Your task to perform on an android device: Show me popular games on the Play Store Image 0: 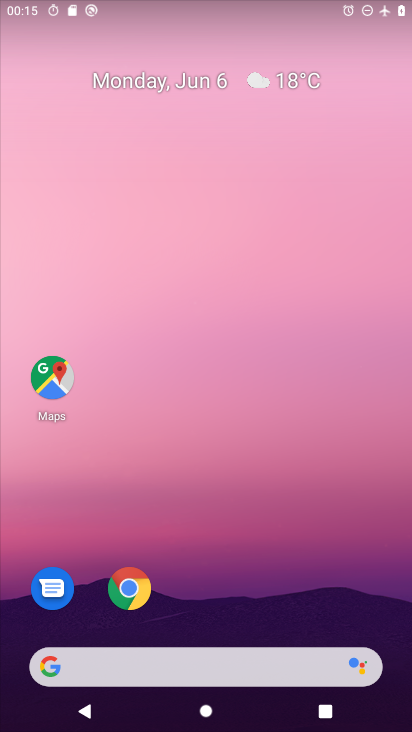
Step 0: drag from (326, 561) to (321, 128)
Your task to perform on an android device: Show me popular games on the Play Store Image 1: 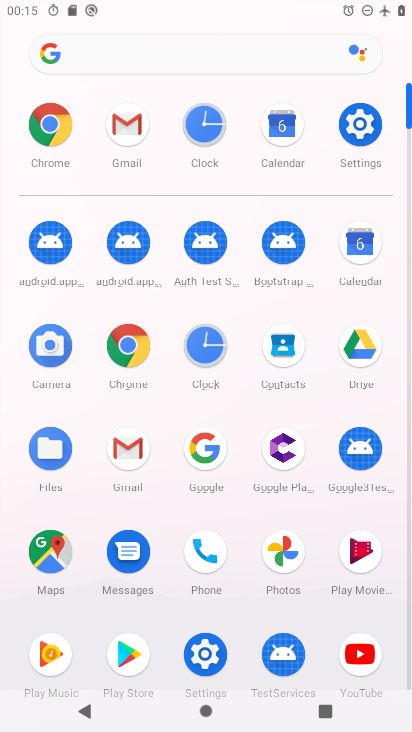
Step 1: drag from (316, 612) to (317, 350)
Your task to perform on an android device: Show me popular games on the Play Store Image 2: 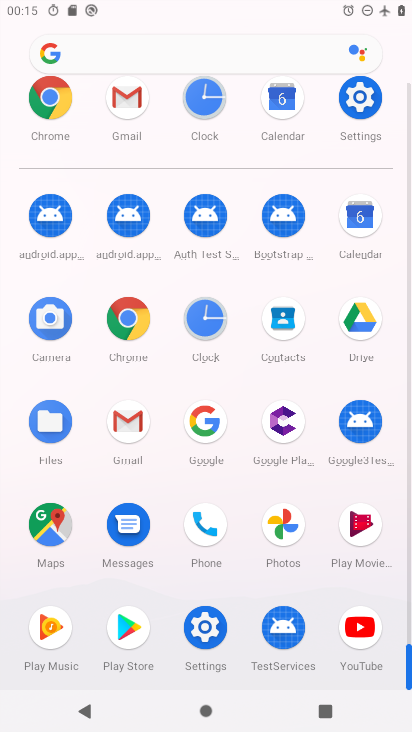
Step 2: click (139, 625)
Your task to perform on an android device: Show me popular games on the Play Store Image 3: 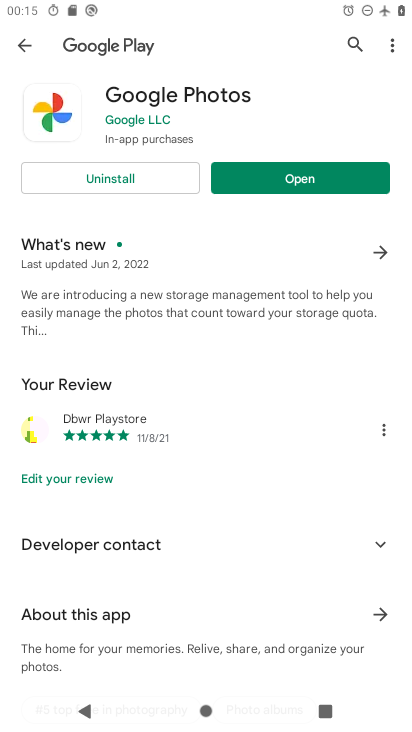
Step 3: press back button
Your task to perform on an android device: Show me popular games on the Play Store Image 4: 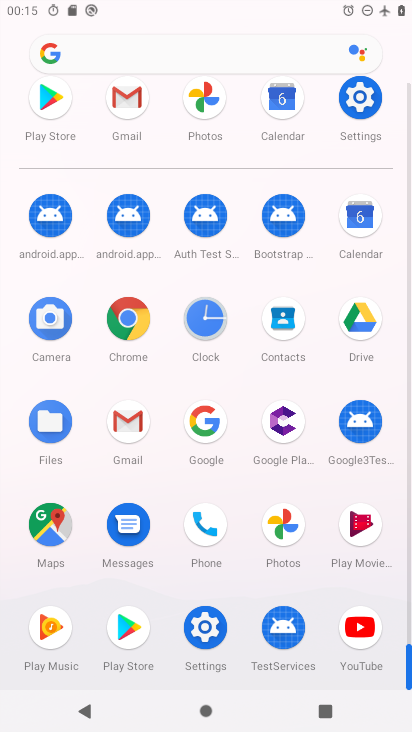
Step 4: click (124, 628)
Your task to perform on an android device: Show me popular games on the Play Store Image 5: 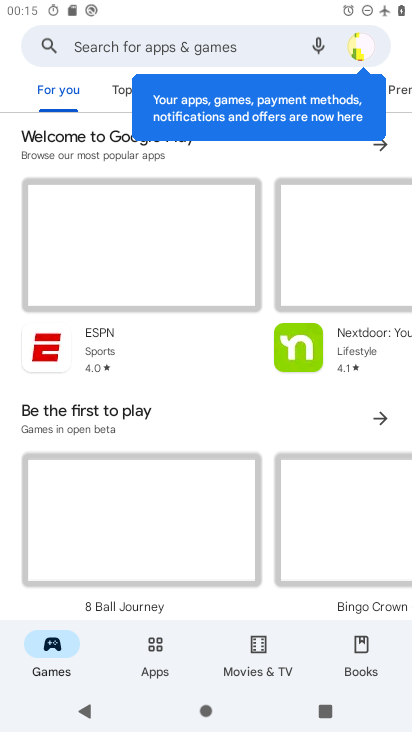
Step 5: task complete